Your task to perform on an android device: move an email to a new category in the gmail app Image 0: 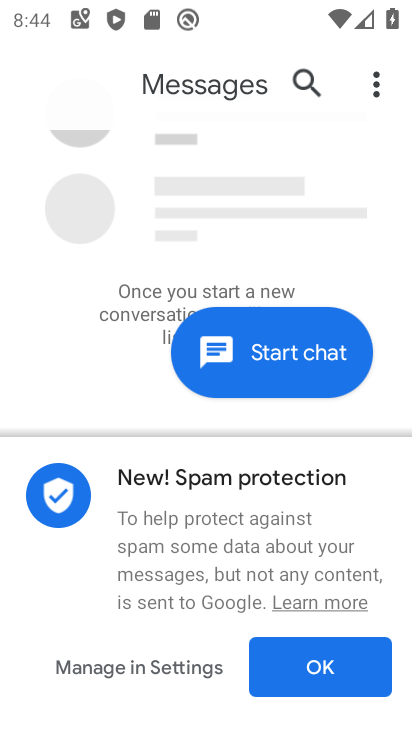
Step 0: press home button
Your task to perform on an android device: move an email to a new category in the gmail app Image 1: 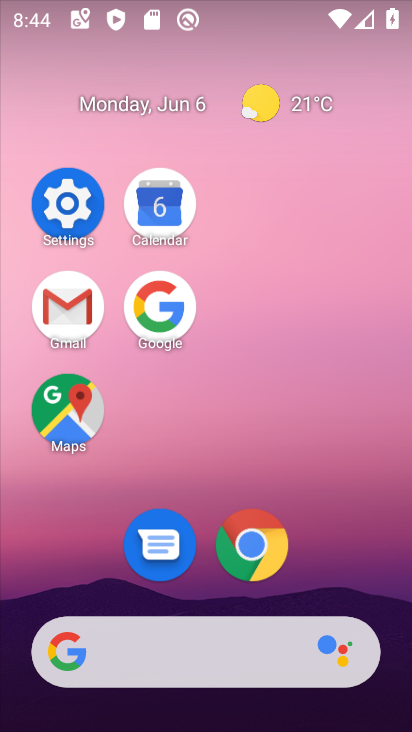
Step 1: click (67, 302)
Your task to perform on an android device: move an email to a new category in the gmail app Image 2: 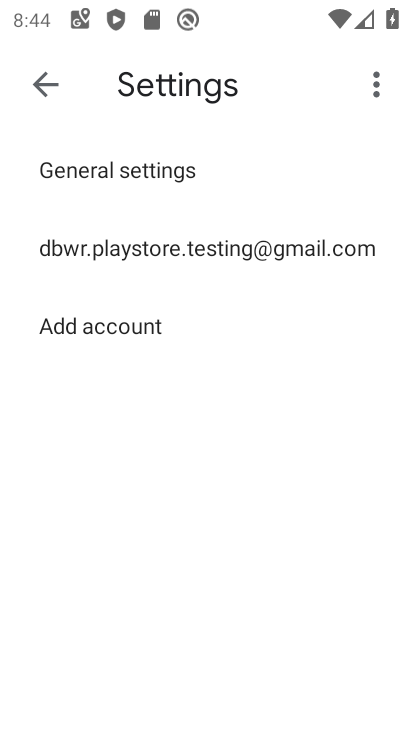
Step 2: click (71, 83)
Your task to perform on an android device: move an email to a new category in the gmail app Image 3: 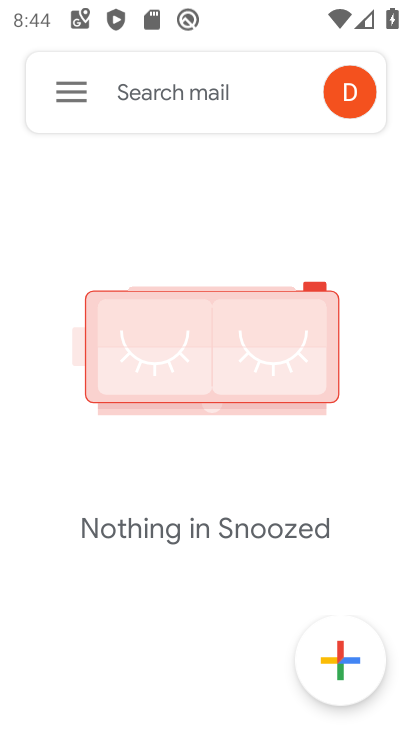
Step 3: click (71, 83)
Your task to perform on an android device: move an email to a new category in the gmail app Image 4: 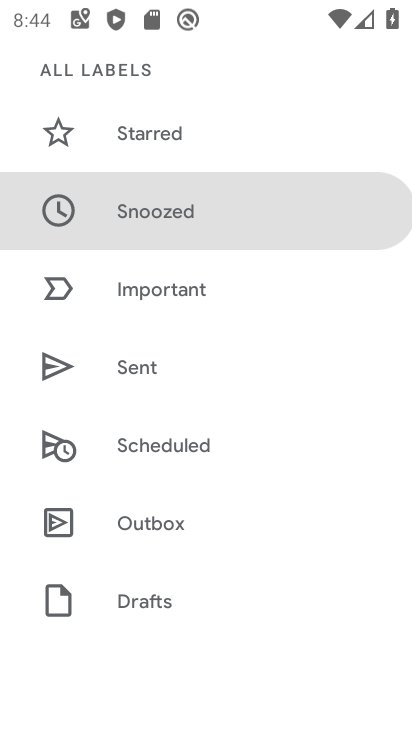
Step 4: drag from (223, 234) to (210, 597)
Your task to perform on an android device: move an email to a new category in the gmail app Image 5: 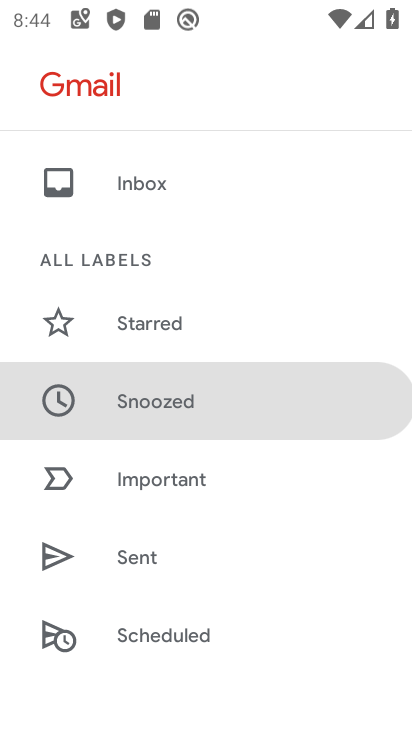
Step 5: drag from (224, 391) to (231, 61)
Your task to perform on an android device: move an email to a new category in the gmail app Image 6: 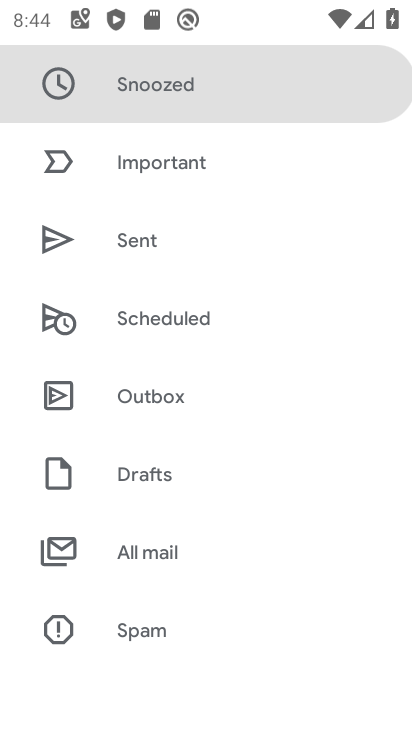
Step 6: drag from (282, 497) to (251, 201)
Your task to perform on an android device: move an email to a new category in the gmail app Image 7: 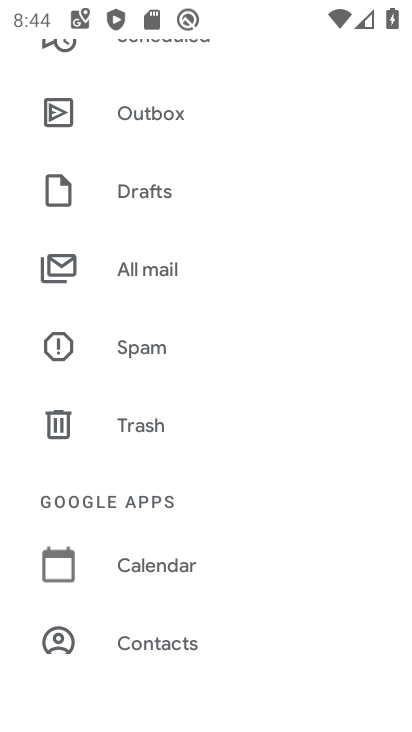
Step 7: click (206, 261)
Your task to perform on an android device: move an email to a new category in the gmail app Image 8: 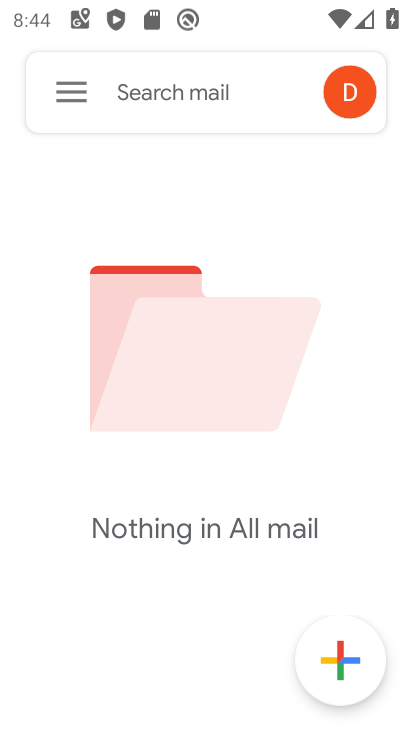
Step 8: task complete